Your task to perform on an android device: Open ESPN.com Image 0: 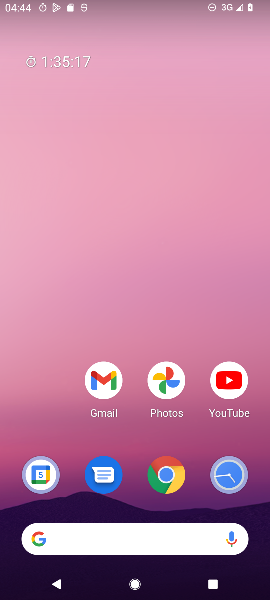
Step 0: press home button
Your task to perform on an android device: Open ESPN.com Image 1: 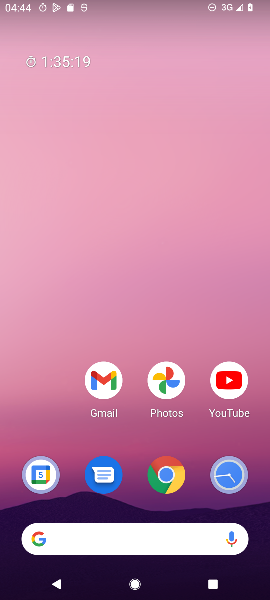
Step 1: drag from (55, 426) to (57, 236)
Your task to perform on an android device: Open ESPN.com Image 2: 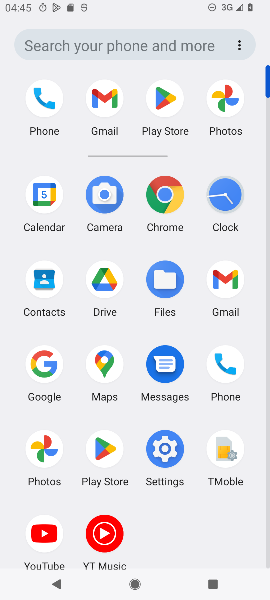
Step 2: click (163, 197)
Your task to perform on an android device: Open ESPN.com Image 3: 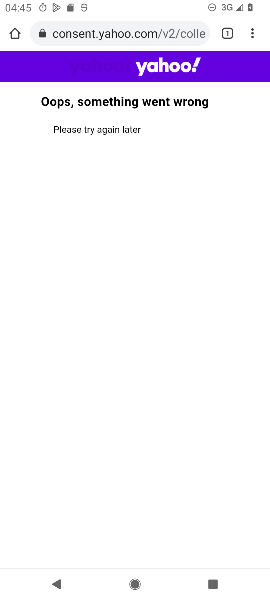
Step 3: click (153, 30)
Your task to perform on an android device: Open ESPN.com Image 4: 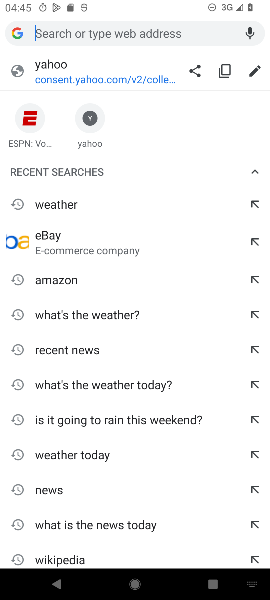
Step 4: type "espn.com"
Your task to perform on an android device: Open ESPN.com Image 5: 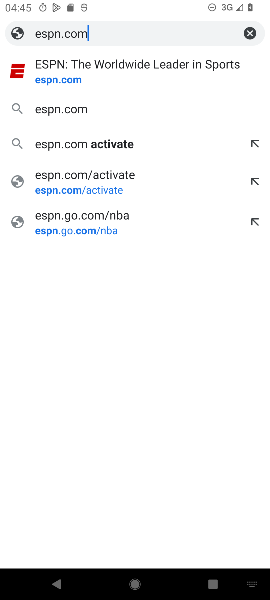
Step 5: task complete